Your task to perform on an android device: Open location settings Image 0: 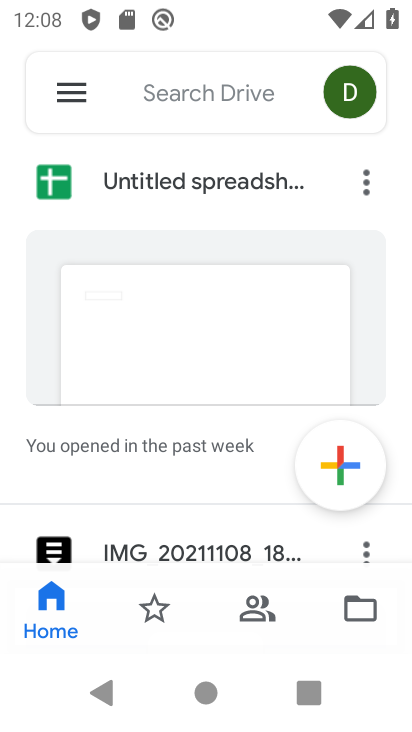
Step 0: press home button
Your task to perform on an android device: Open location settings Image 1: 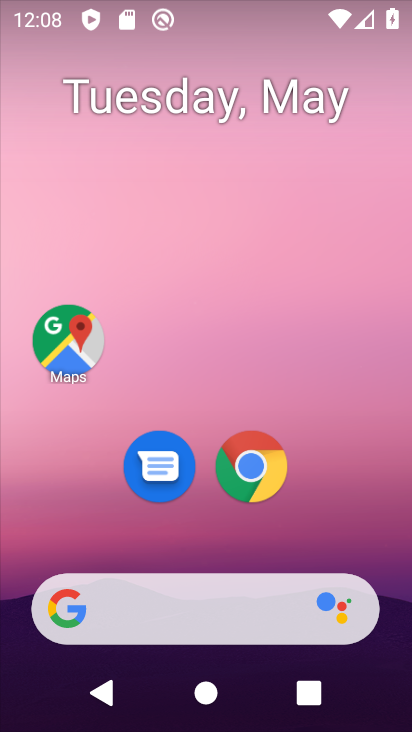
Step 1: click (387, 256)
Your task to perform on an android device: Open location settings Image 2: 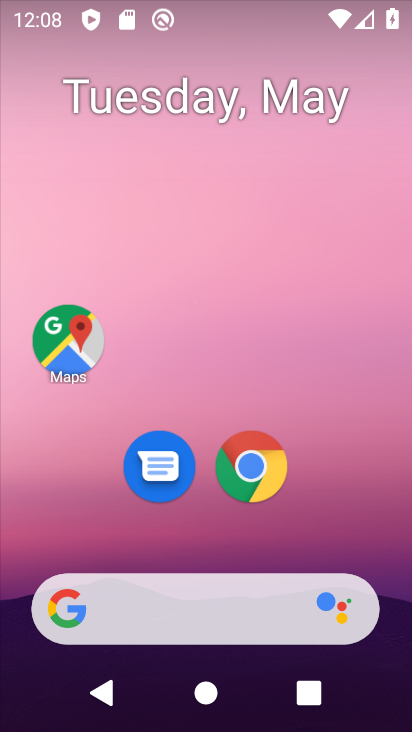
Step 2: drag from (390, 620) to (344, 278)
Your task to perform on an android device: Open location settings Image 3: 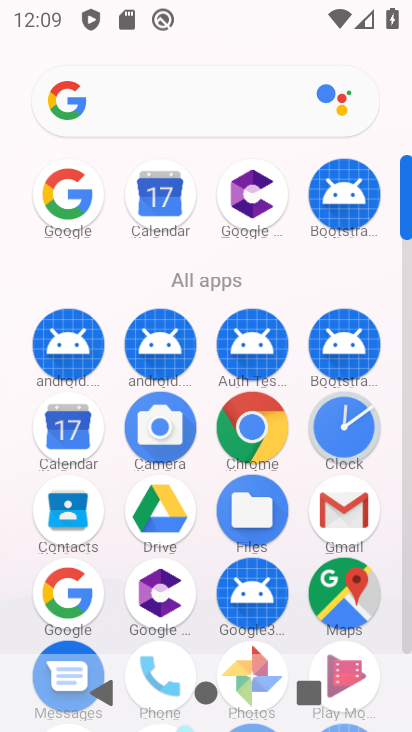
Step 3: drag from (406, 166) to (386, 84)
Your task to perform on an android device: Open location settings Image 4: 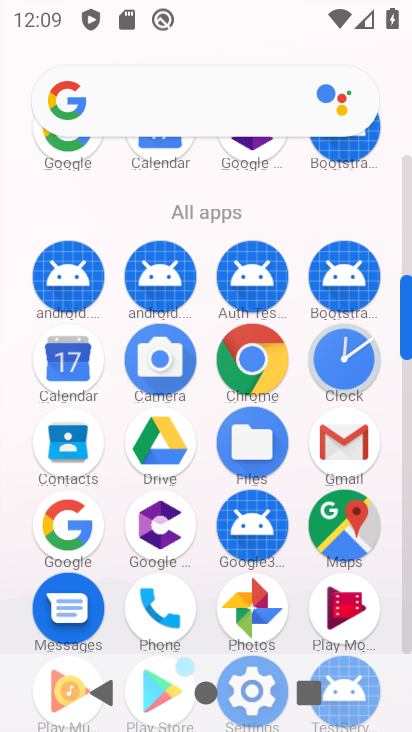
Step 4: click (253, 673)
Your task to perform on an android device: Open location settings Image 5: 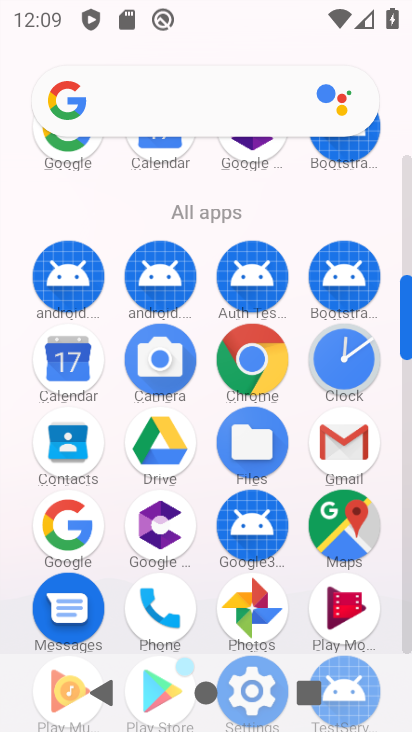
Step 5: click (396, 243)
Your task to perform on an android device: Open location settings Image 6: 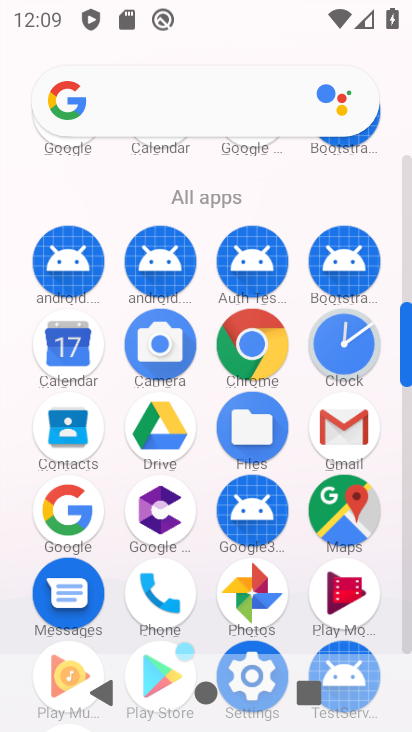
Step 6: click (261, 640)
Your task to perform on an android device: Open location settings Image 7: 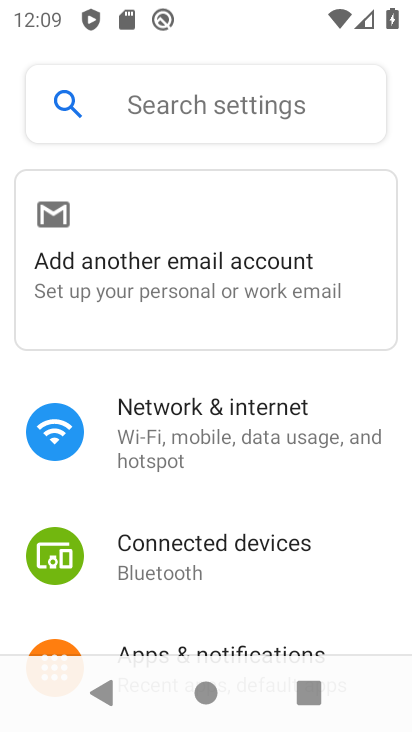
Step 7: drag from (273, 635) to (252, 303)
Your task to perform on an android device: Open location settings Image 8: 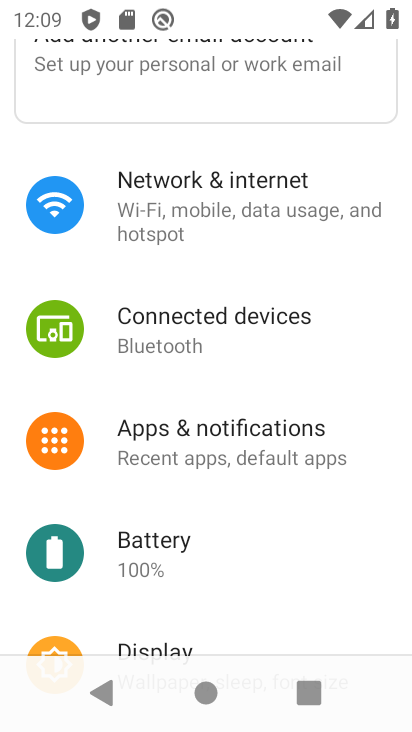
Step 8: drag from (286, 591) to (277, 337)
Your task to perform on an android device: Open location settings Image 9: 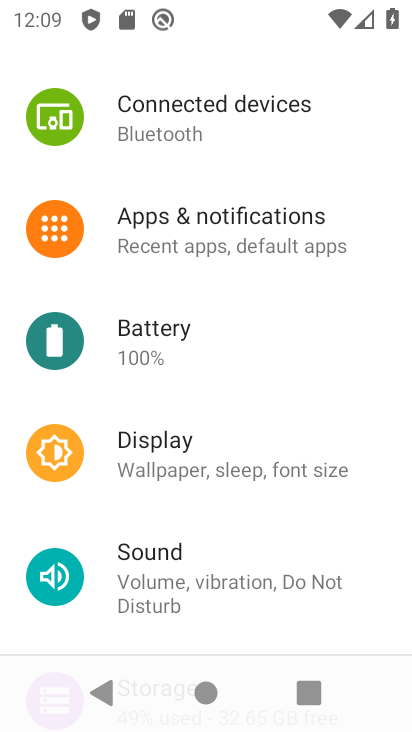
Step 9: drag from (290, 543) to (264, 379)
Your task to perform on an android device: Open location settings Image 10: 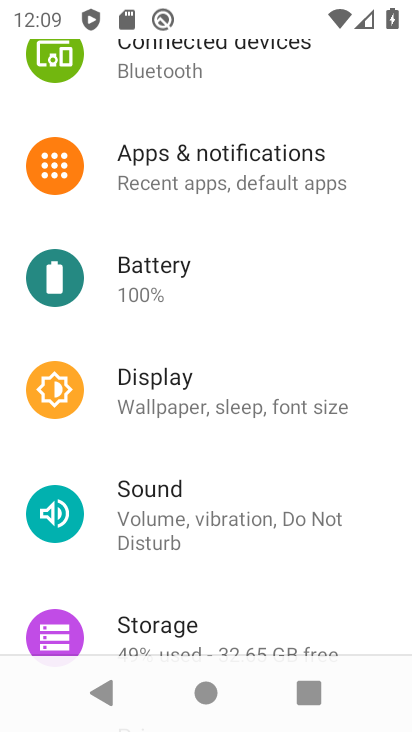
Step 10: drag from (305, 596) to (284, 444)
Your task to perform on an android device: Open location settings Image 11: 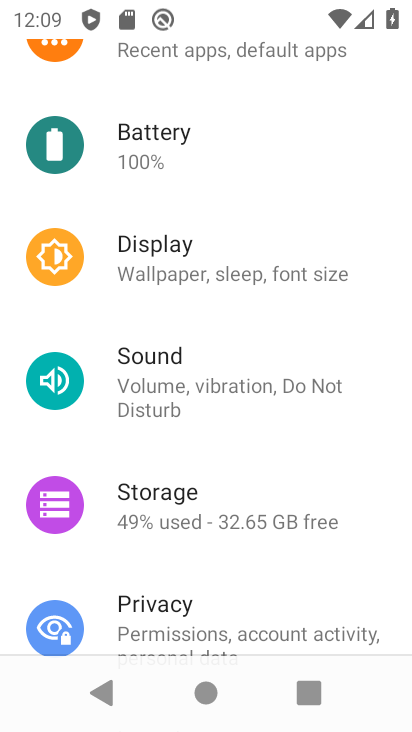
Step 11: drag from (276, 610) to (274, 509)
Your task to perform on an android device: Open location settings Image 12: 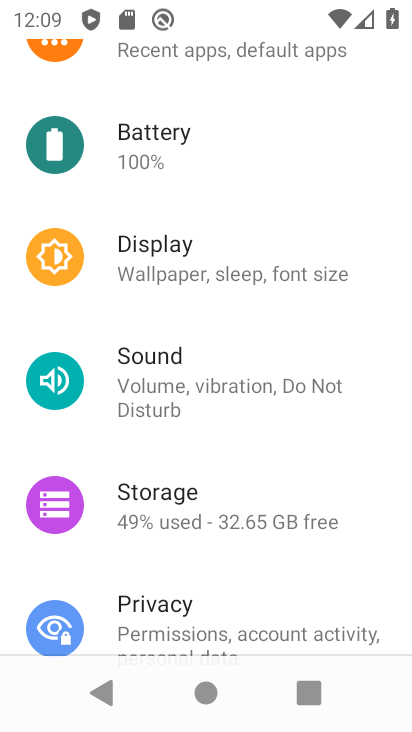
Step 12: drag from (309, 586) to (310, 415)
Your task to perform on an android device: Open location settings Image 13: 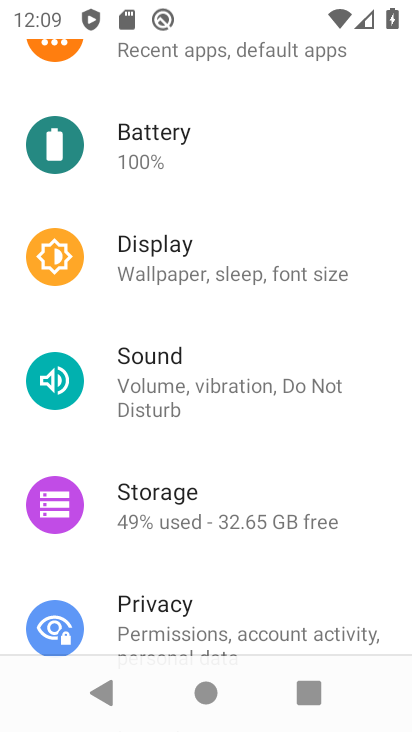
Step 13: drag from (259, 583) to (258, 235)
Your task to perform on an android device: Open location settings Image 14: 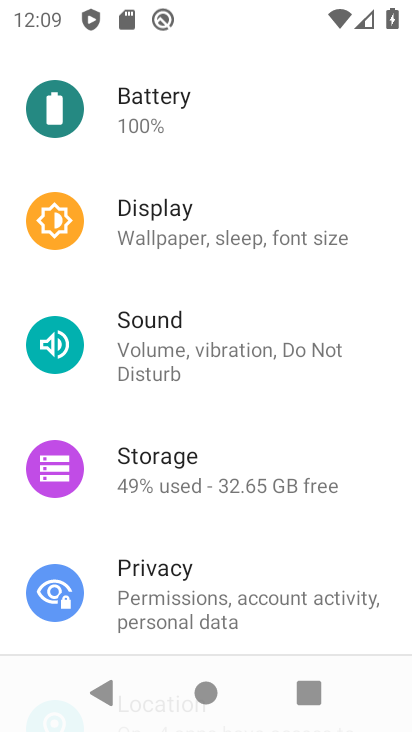
Step 14: drag from (233, 598) to (247, 372)
Your task to perform on an android device: Open location settings Image 15: 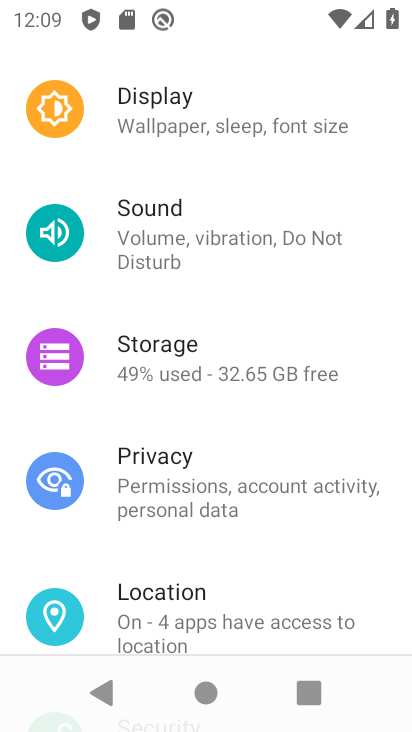
Step 15: click (185, 602)
Your task to perform on an android device: Open location settings Image 16: 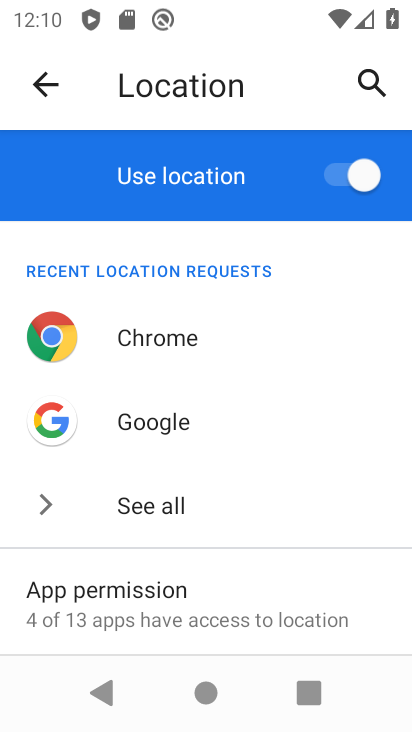
Step 16: task complete